Your task to perform on an android device: Show me the alarms in the clock app Image 0: 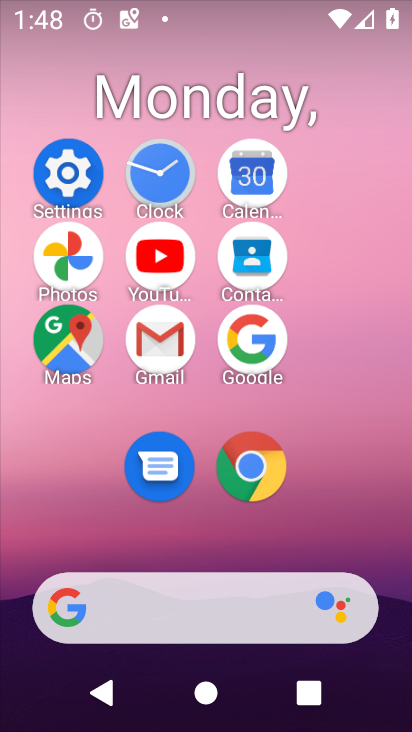
Step 0: click (179, 168)
Your task to perform on an android device: Show me the alarms in the clock app Image 1: 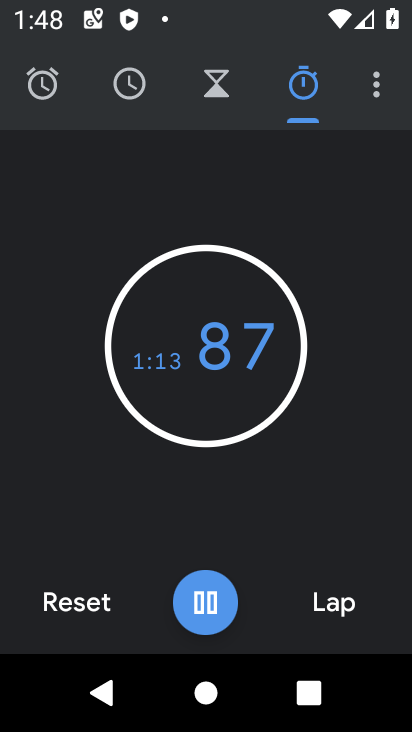
Step 1: click (40, 100)
Your task to perform on an android device: Show me the alarms in the clock app Image 2: 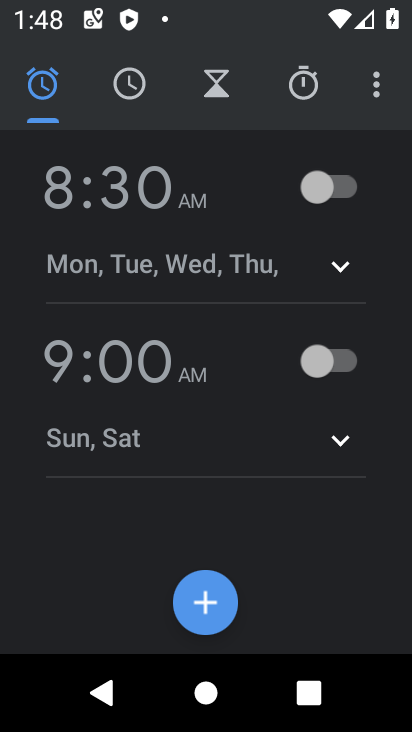
Step 2: task complete